Your task to perform on an android device: toggle javascript in the chrome app Image 0: 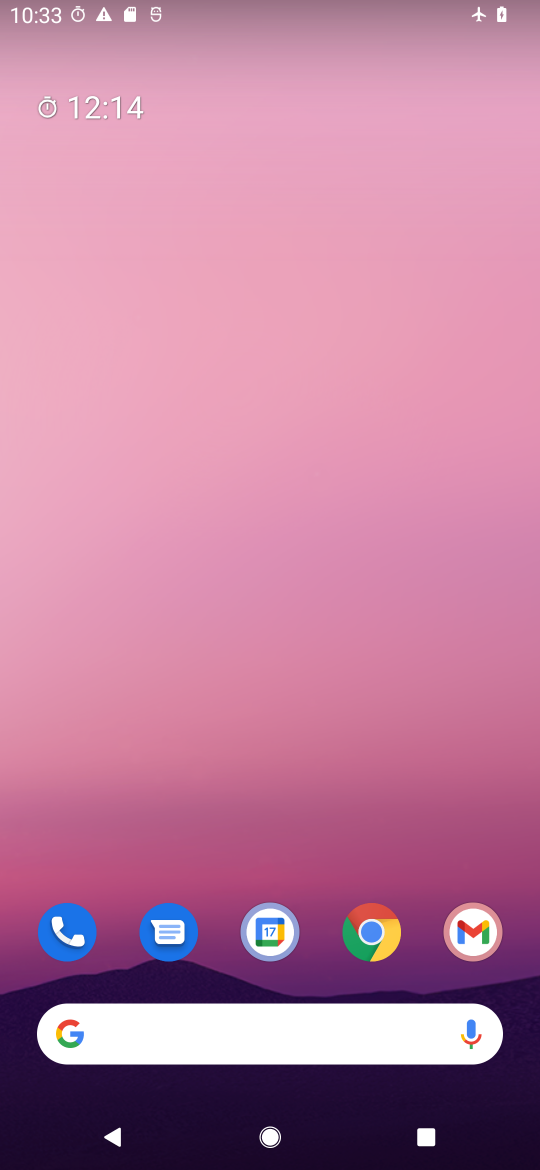
Step 0: click (370, 922)
Your task to perform on an android device: toggle javascript in the chrome app Image 1: 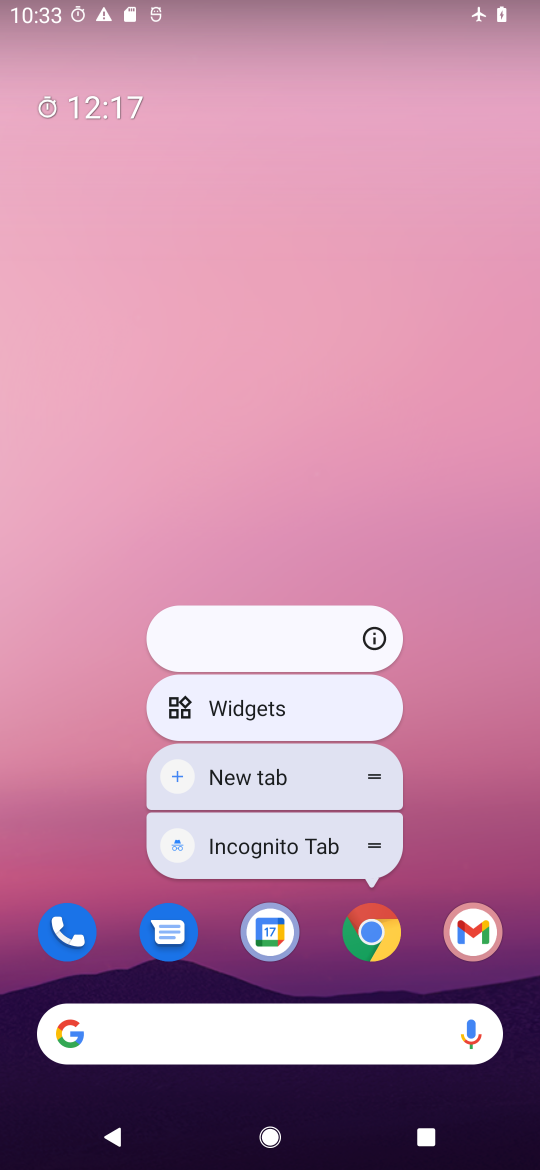
Step 1: click (375, 922)
Your task to perform on an android device: toggle javascript in the chrome app Image 2: 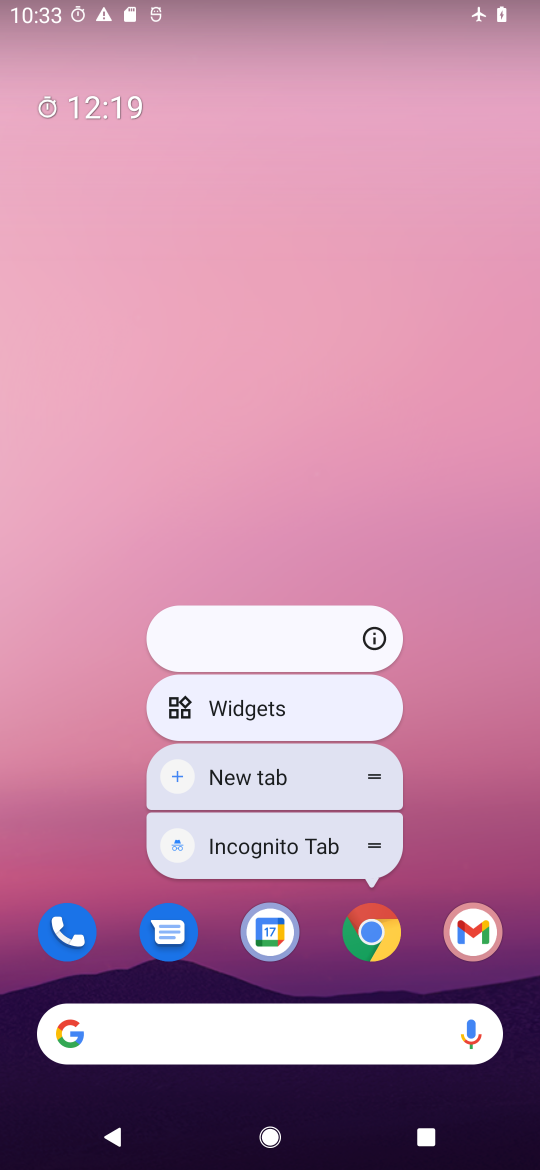
Step 2: click (377, 914)
Your task to perform on an android device: toggle javascript in the chrome app Image 3: 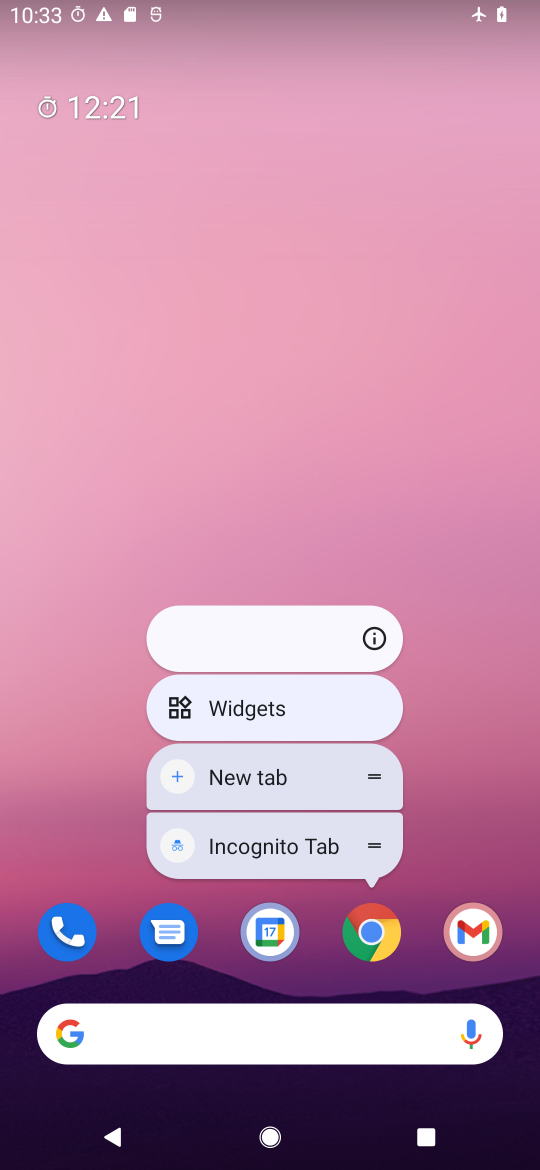
Step 3: click (377, 933)
Your task to perform on an android device: toggle javascript in the chrome app Image 4: 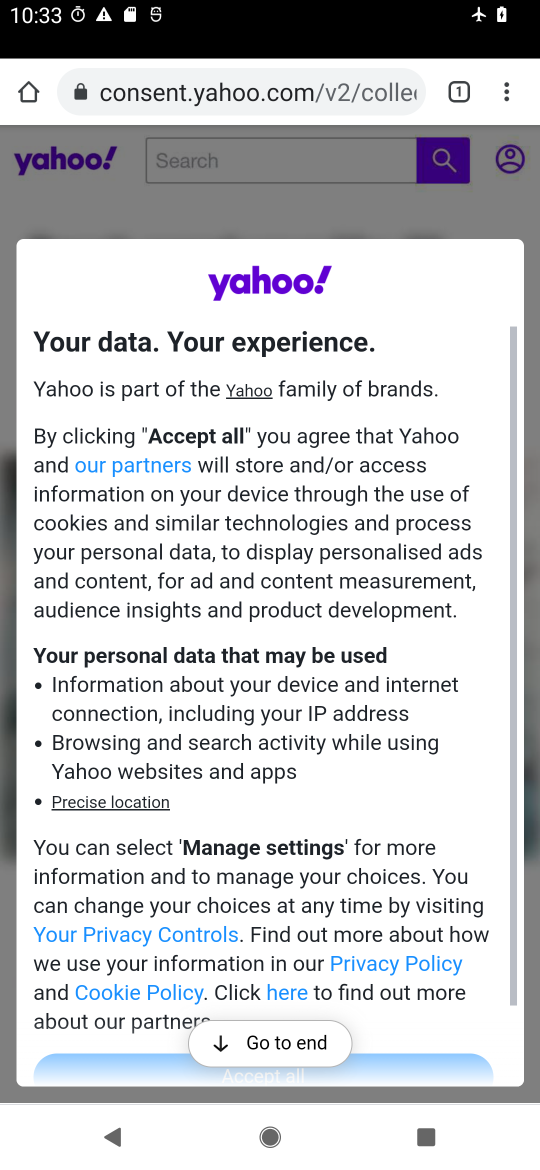
Step 4: click (506, 65)
Your task to perform on an android device: toggle javascript in the chrome app Image 5: 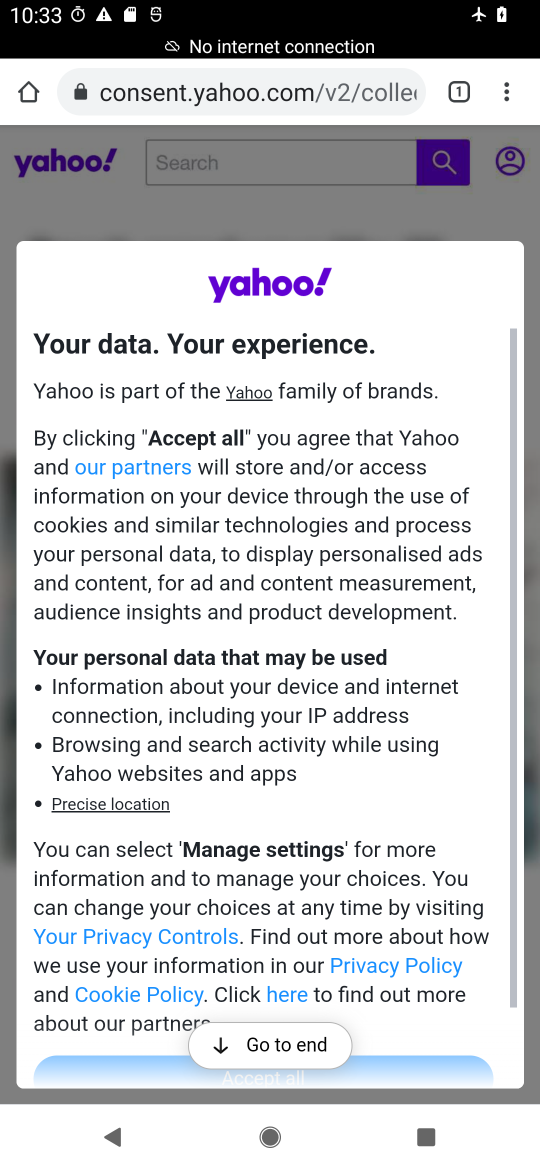
Step 5: click (508, 96)
Your task to perform on an android device: toggle javascript in the chrome app Image 6: 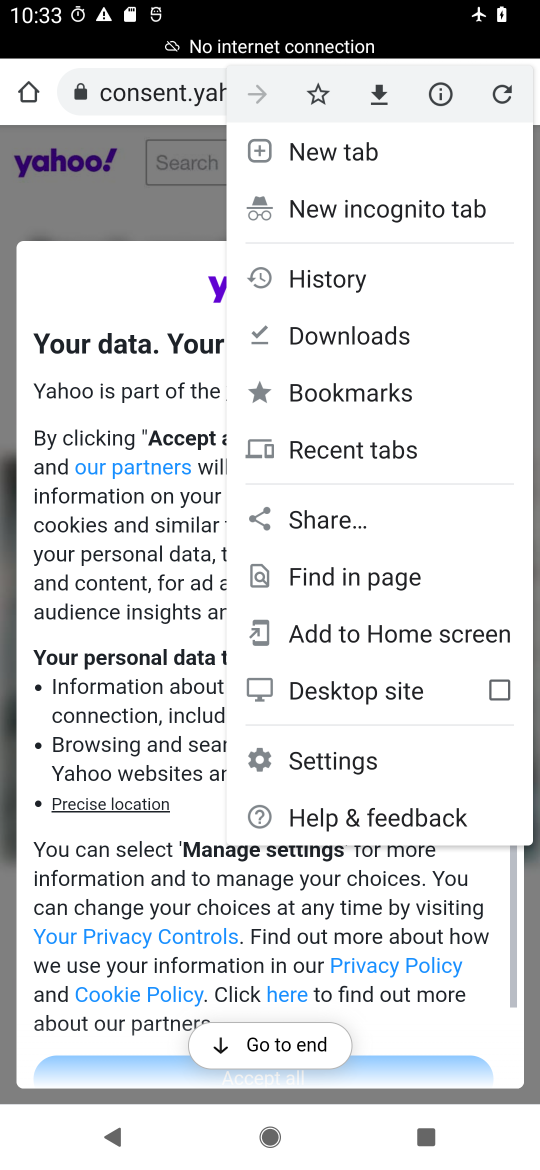
Step 6: click (327, 744)
Your task to perform on an android device: toggle javascript in the chrome app Image 7: 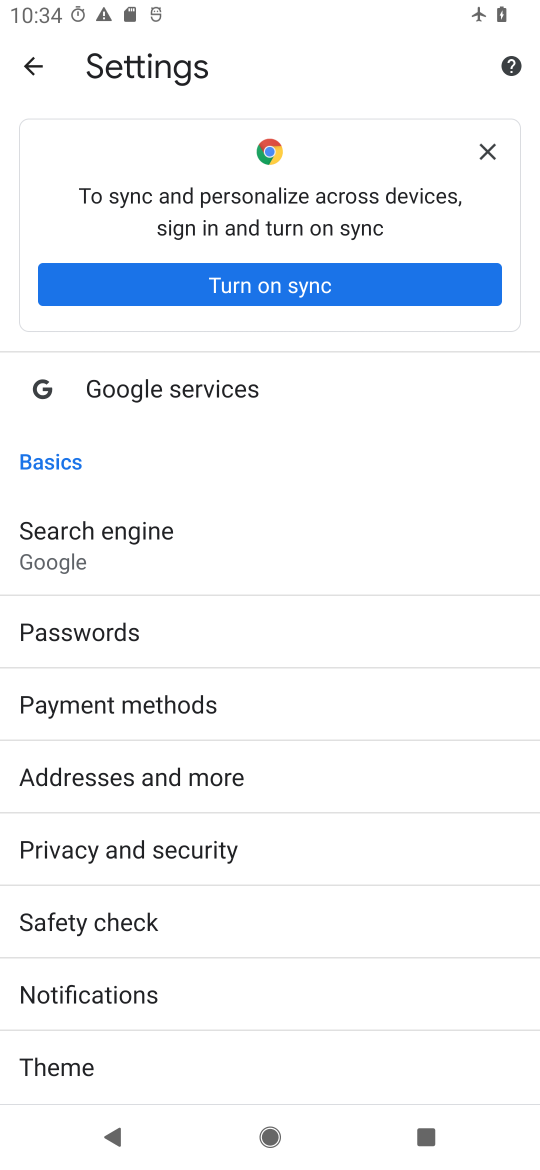
Step 7: drag from (176, 970) to (327, 337)
Your task to perform on an android device: toggle javascript in the chrome app Image 8: 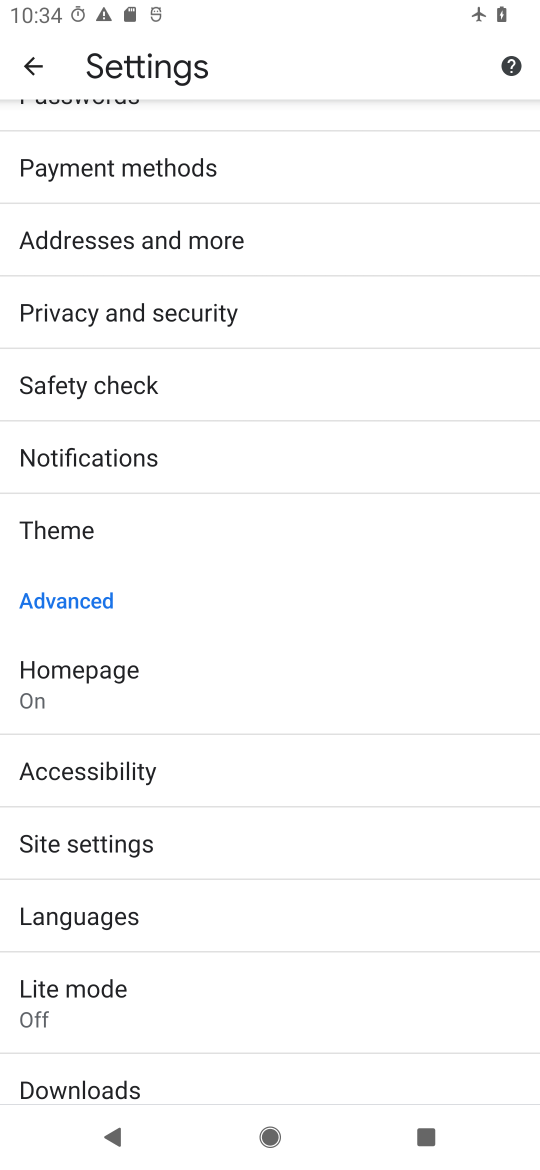
Step 8: click (214, 843)
Your task to perform on an android device: toggle javascript in the chrome app Image 9: 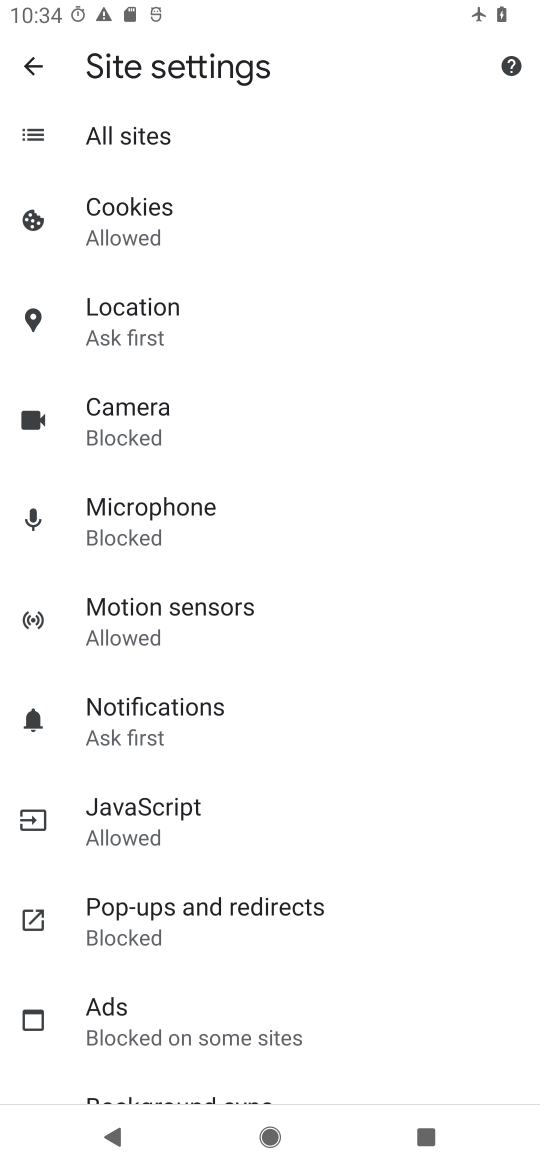
Step 9: click (250, 817)
Your task to perform on an android device: toggle javascript in the chrome app Image 10: 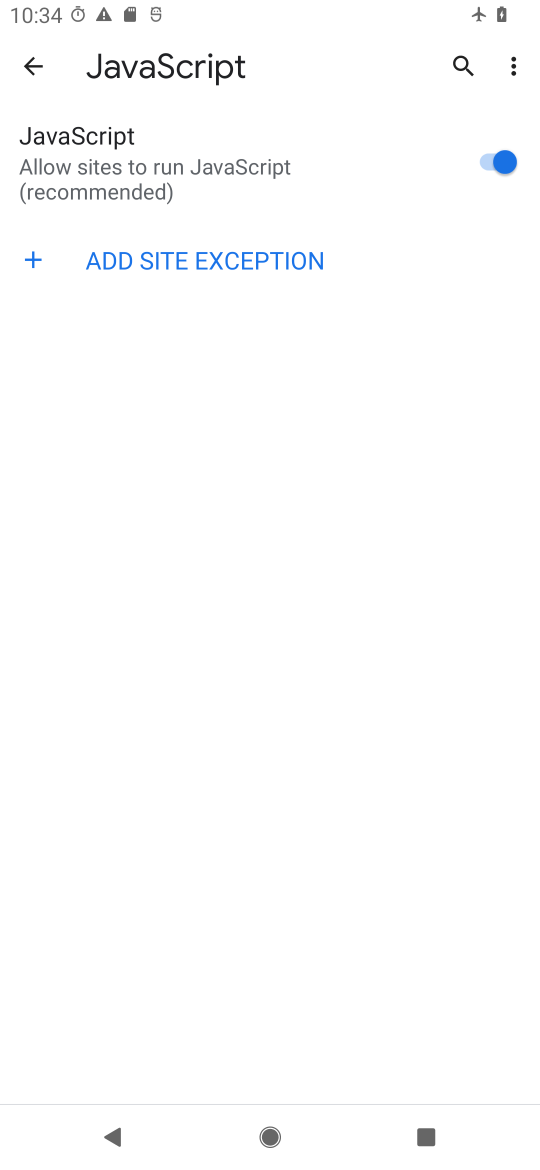
Step 10: click (492, 153)
Your task to perform on an android device: toggle javascript in the chrome app Image 11: 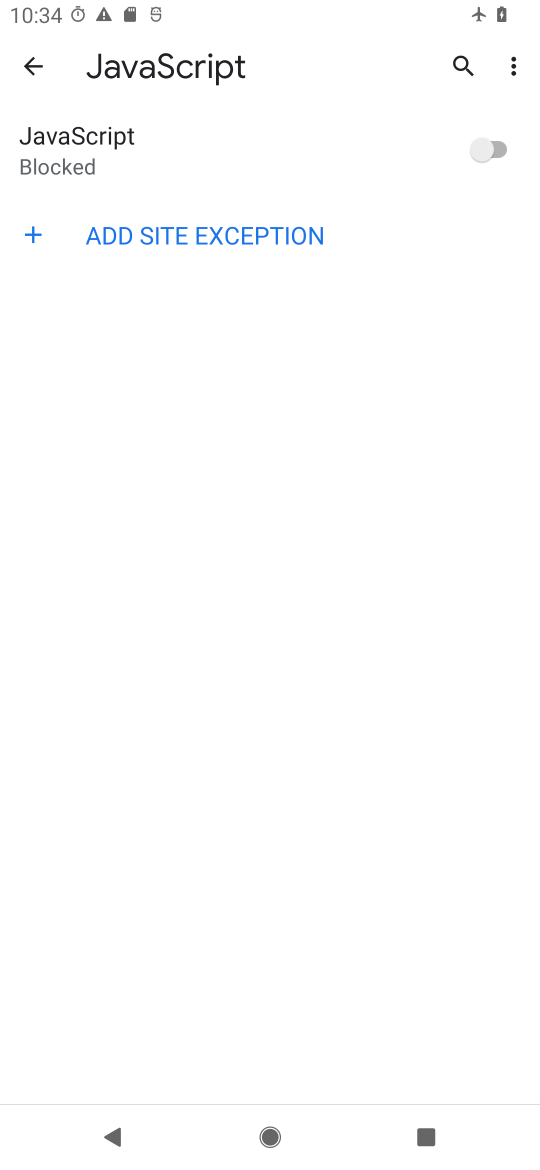
Step 11: task complete